Your task to perform on an android device: open the mobile data screen to see how much data has been used Image 0: 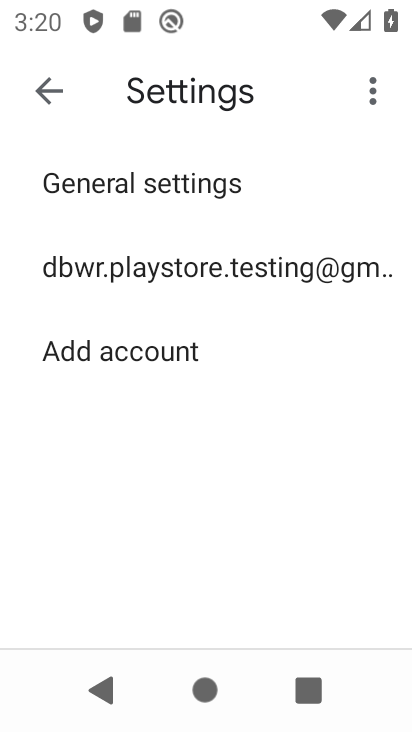
Step 0: press back button
Your task to perform on an android device: open the mobile data screen to see how much data has been used Image 1: 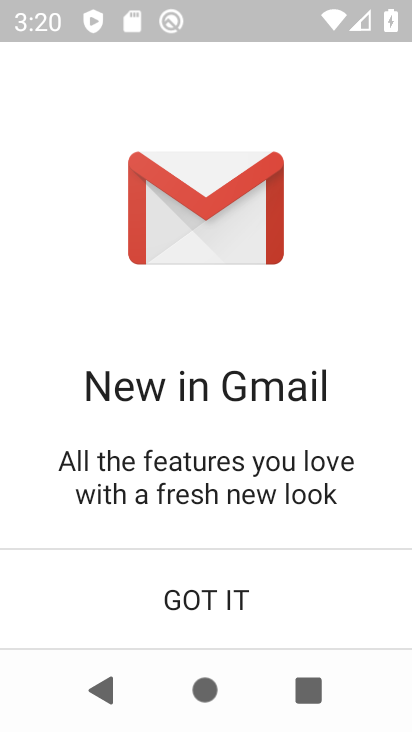
Step 1: click (195, 595)
Your task to perform on an android device: open the mobile data screen to see how much data has been used Image 2: 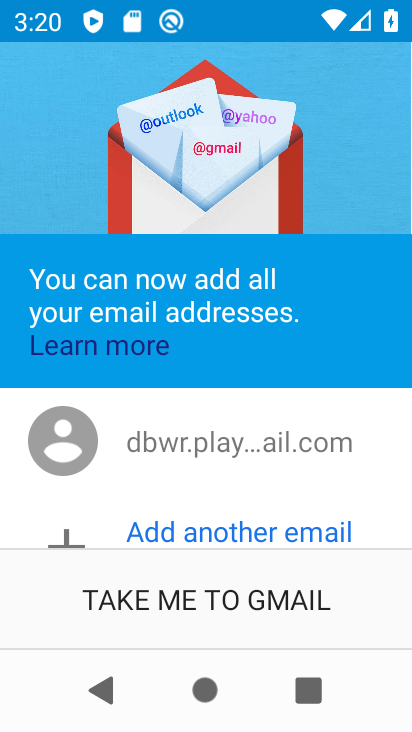
Step 2: click (214, 600)
Your task to perform on an android device: open the mobile data screen to see how much data has been used Image 3: 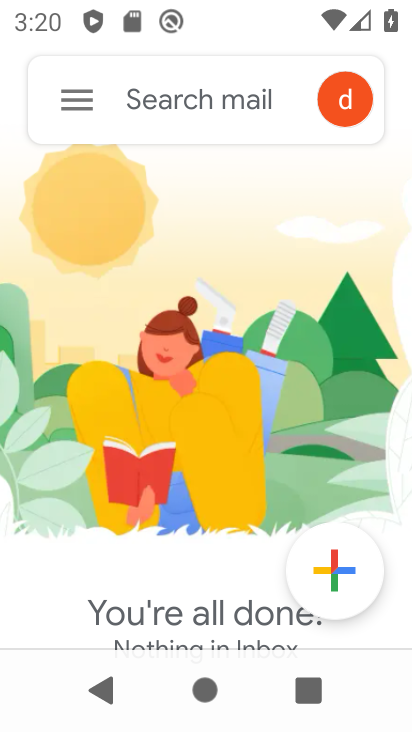
Step 3: press back button
Your task to perform on an android device: open the mobile data screen to see how much data has been used Image 4: 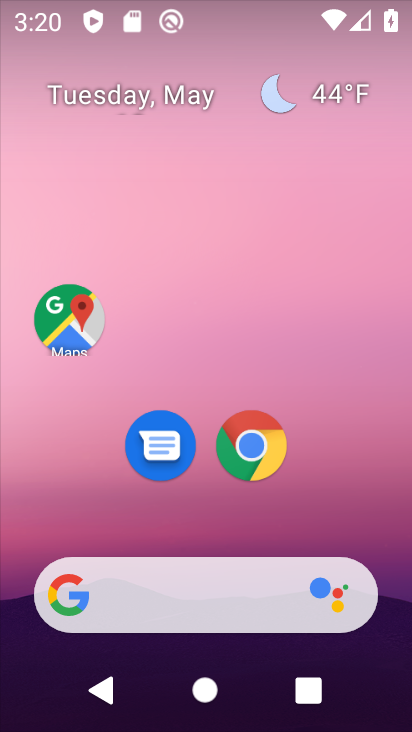
Step 4: drag from (187, 495) to (240, 127)
Your task to perform on an android device: open the mobile data screen to see how much data has been used Image 5: 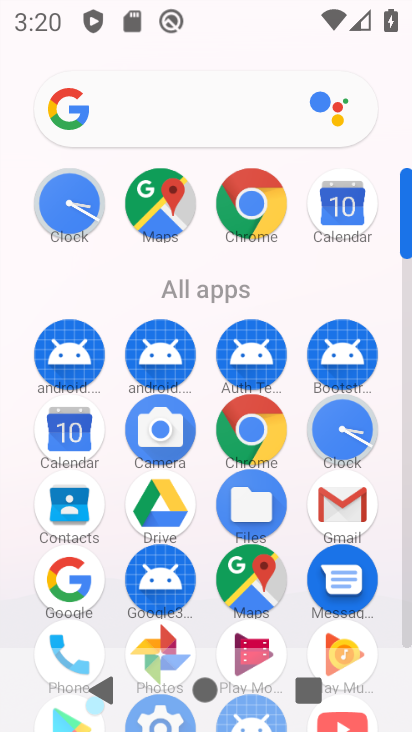
Step 5: drag from (191, 287) to (215, 171)
Your task to perform on an android device: open the mobile data screen to see how much data has been used Image 6: 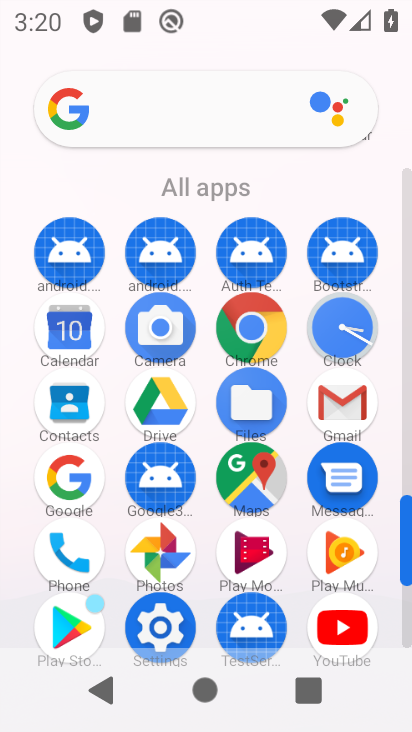
Step 6: click (161, 633)
Your task to perform on an android device: open the mobile data screen to see how much data has been used Image 7: 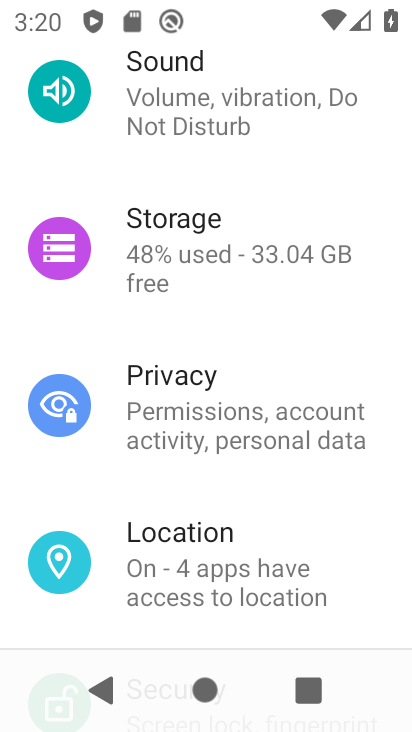
Step 7: drag from (235, 168) to (196, 685)
Your task to perform on an android device: open the mobile data screen to see how much data has been used Image 8: 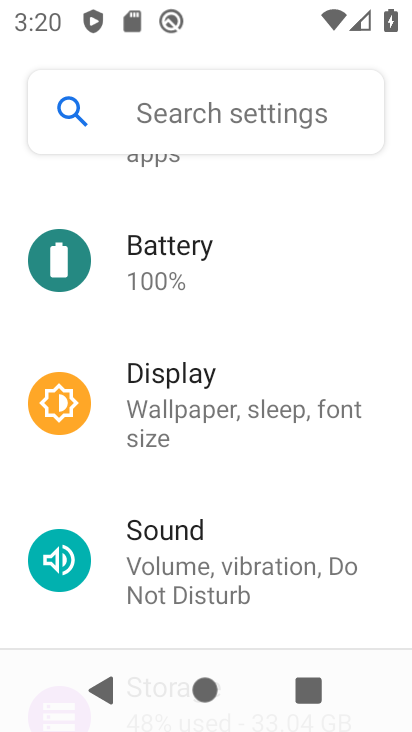
Step 8: drag from (221, 230) to (207, 660)
Your task to perform on an android device: open the mobile data screen to see how much data has been used Image 9: 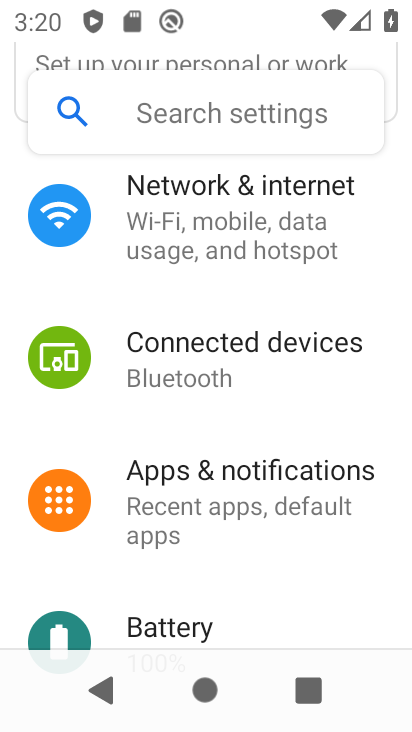
Step 9: click (219, 240)
Your task to perform on an android device: open the mobile data screen to see how much data has been used Image 10: 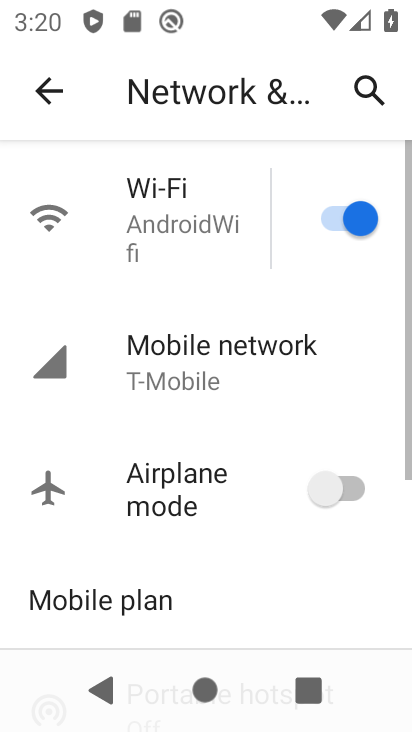
Step 10: drag from (203, 597) to (276, 135)
Your task to perform on an android device: open the mobile data screen to see how much data has been used Image 11: 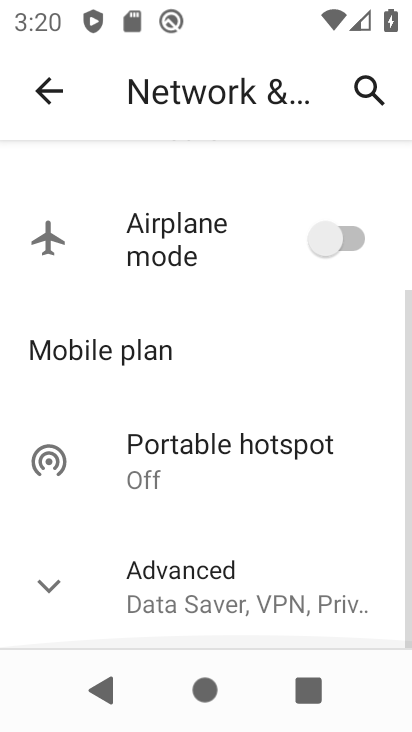
Step 11: drag from (271, 224) to (169, 728)
Your task to perform on an android device: open the mobile data screen to see how much data has been used Image 12: 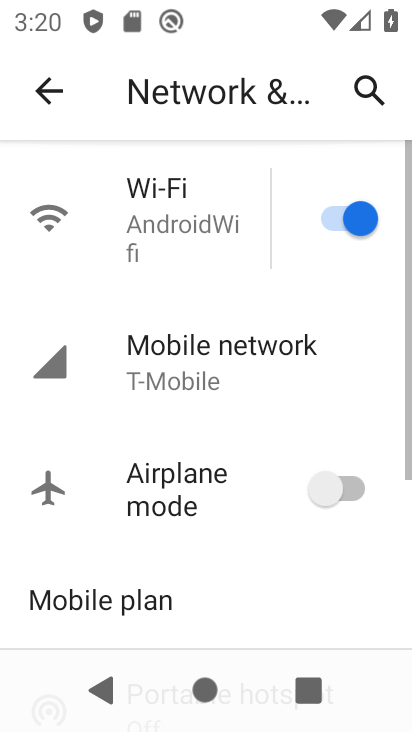
Step 12: click (174, 337)
Your task to perform on an android device: open the mobile data screen to see how much data has been used Image 13: 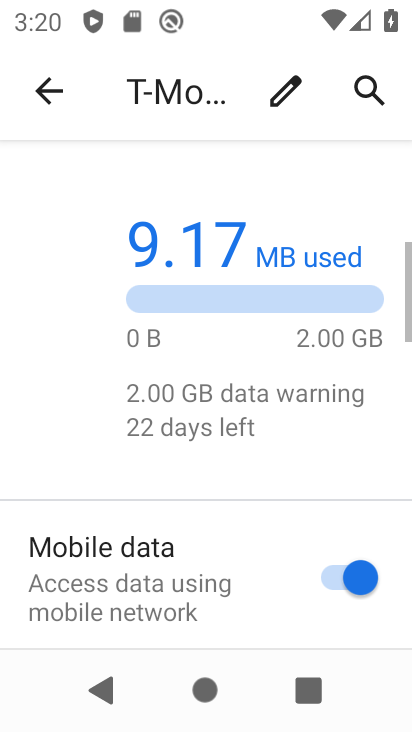
Step 13: drag from (158, 601) to (257, 134)
Your task to perform on an android device: open the mobile data screen to see how much data has been used Image 14: 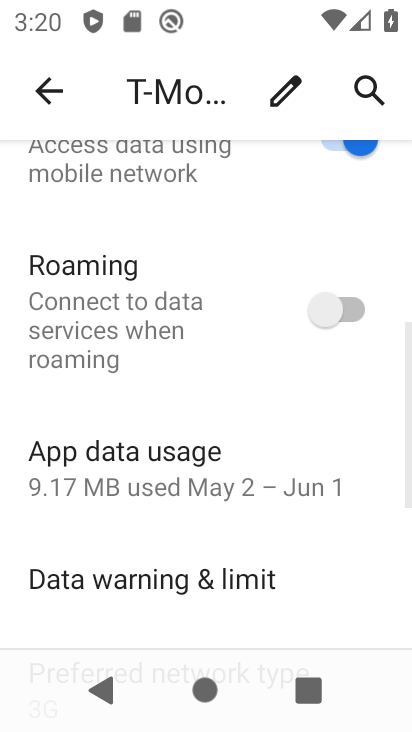
Step 14: click (163, 474)
Your task to perform on an android device: open the mobile data screen to see how much data has been used Image 15: 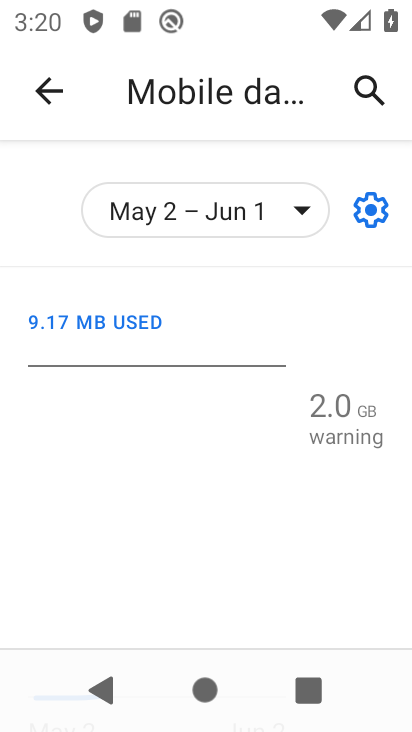
Step 15: task complete